Your task to perform on an android device: make emails show in primary in the gmail app Image 0: 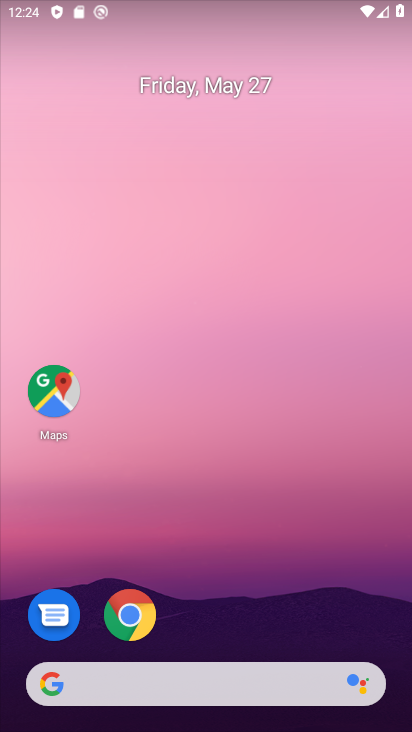
Step 0: press home button
Your task to perform on an android device: make emails show in primary in the gmail app Image 1: 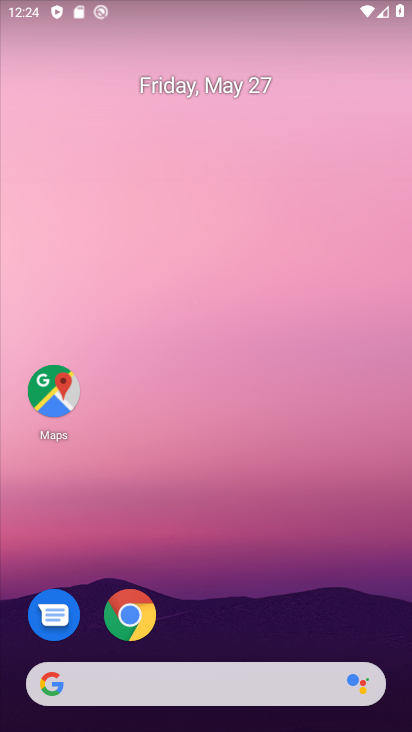
Step 1: drag from (270, 624) to (274, 270)
Your task to perform on an android device: make emails show in primary in the gmail app Image 2: 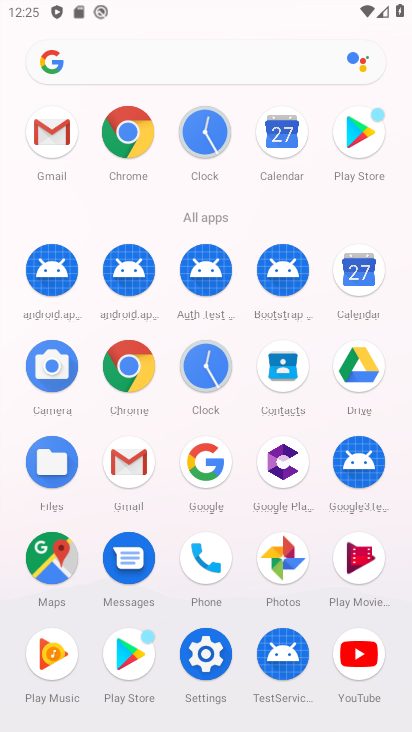
Step 2: click (54, 143)
Your task to perform on an android device: make emails show in primary in the gmail app Image 3: 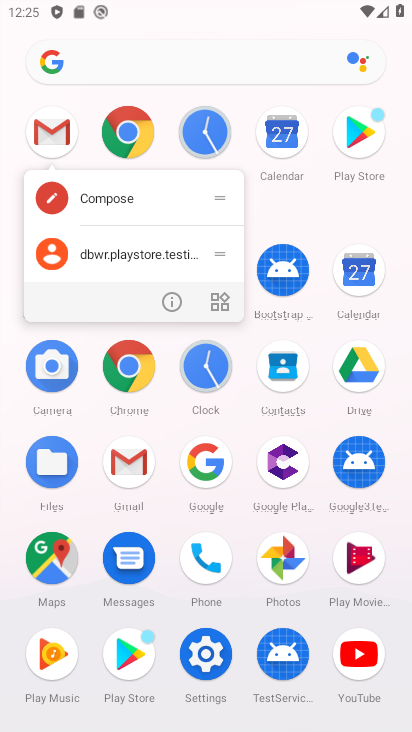
Step 3: click (58, 131)
Your task to perform on an android device: make emails show in primary in the gmail app Image 4: 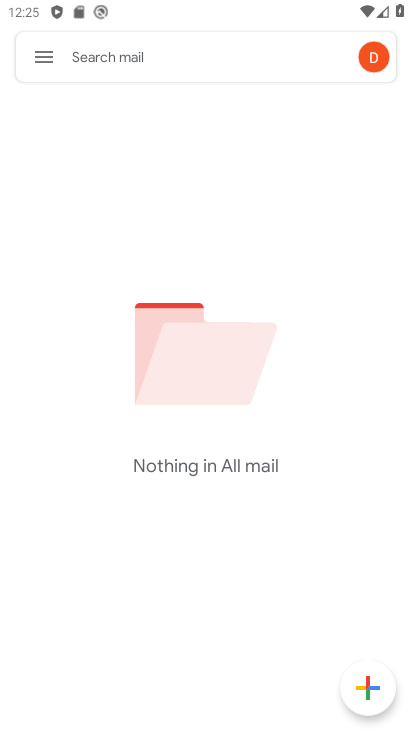
Step 4: click (40, 61)
Your task to perform on an android device: make emails show in primary in the gmail app Image 5: 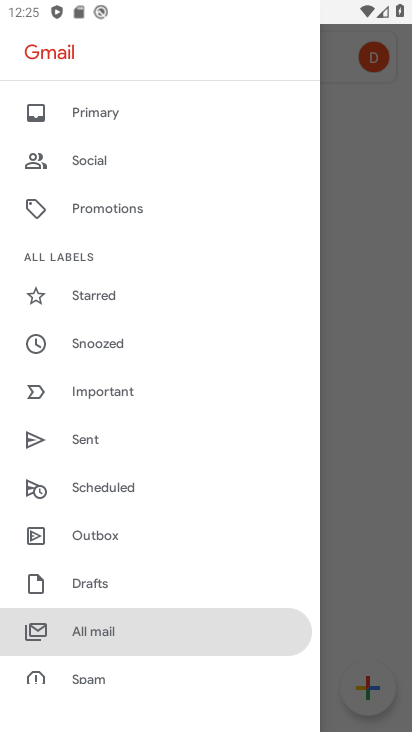
Step 5: drag from (237, 520) to (240, 65)
Your task to perform on an android device: make emails show in primary in the gmail app Image 6: 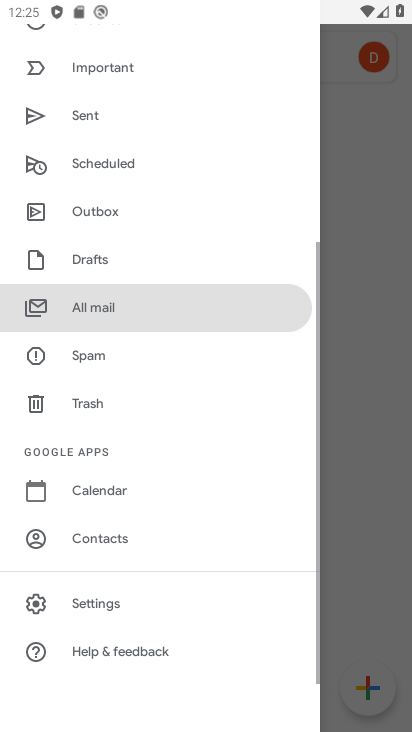
Step 6: click (107, 605)
Your task to perform on an android device: make emails show in primary in the gmail app Image 7: 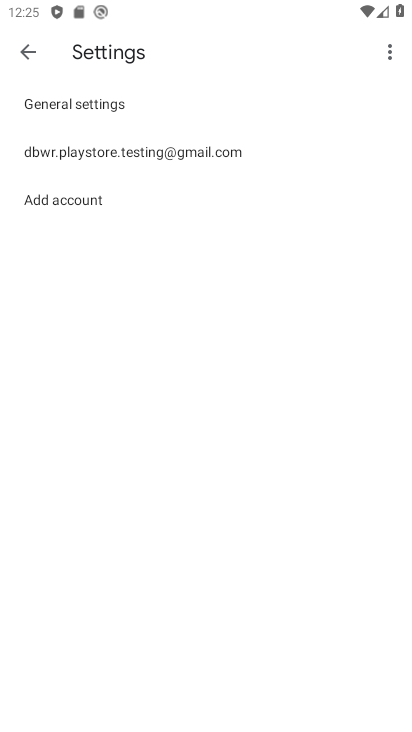
Step 7: click (114, 151)
Your task to perform on an android device: make emails show in primary in the gmail app Image 8: 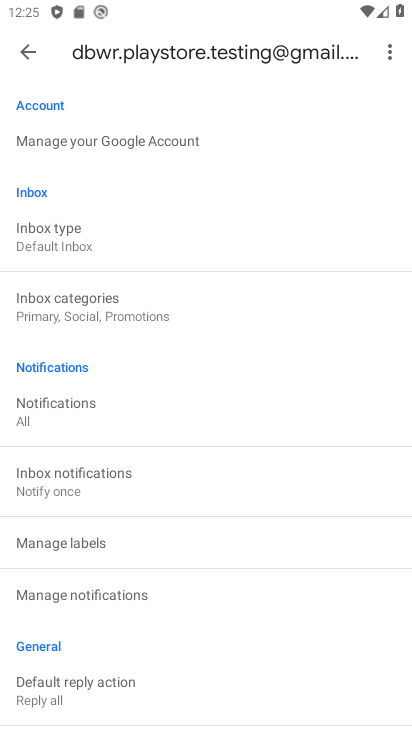
Step 8: click (57, 303)
Your task to perform on an android device: make emails show in primary in the gmail app Image 9: 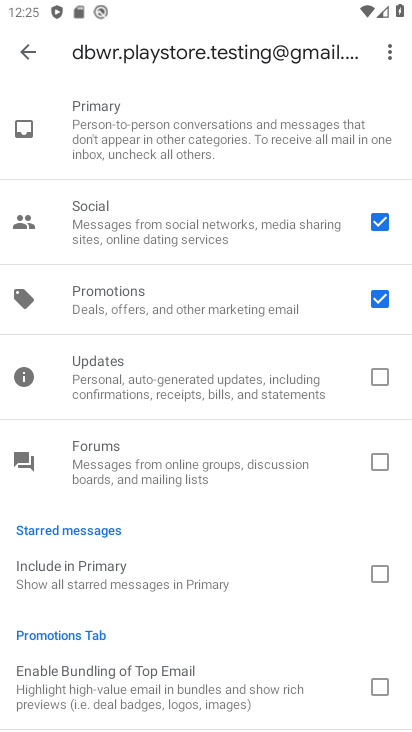
Step 9: click (376, 223)
Your task to perform on an android device: make emails show in primary in the gmail app Image 10: 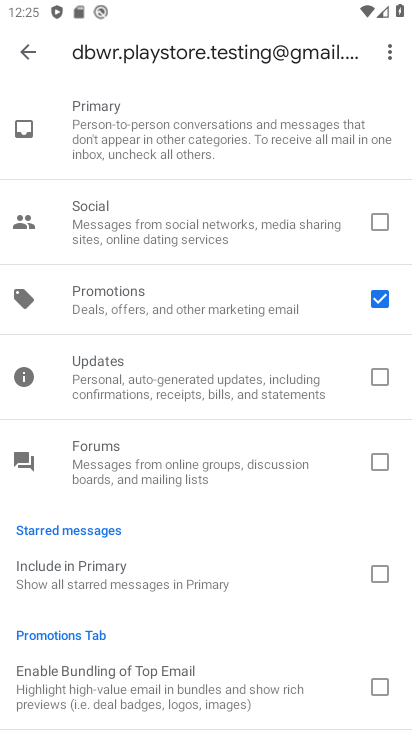
Step 10: click (384, 302)
Your task to perform on an android device: make emails show in primary in the gmail app Image 11: 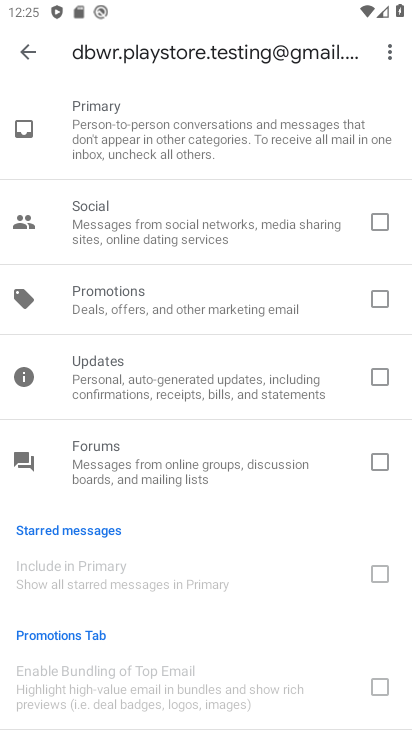
Step 11: drag from (317, 504) to (249, 21)
Your task to perform on an android device: make emails show in primary in the gmail app Image 12: 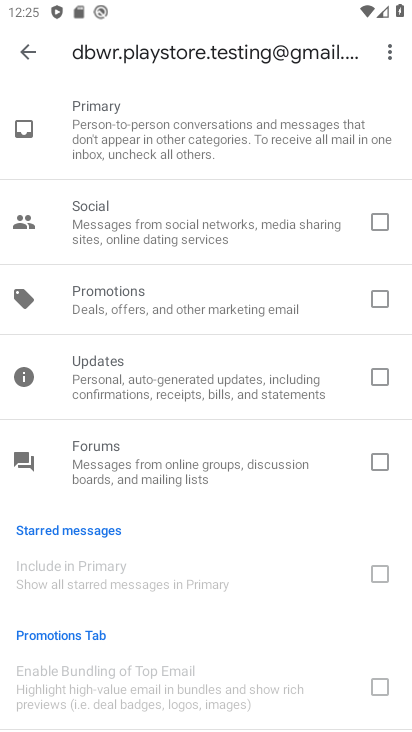
Step 12: click (142, 132)
Your task to perform on an android device: make emails show in primary in the gmail app Image 13: 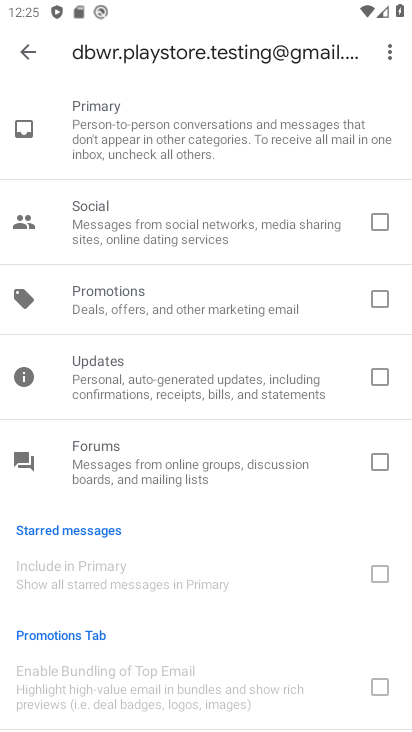
Step 13: task complete